Your task to perform on an android device: open app "Google Calendar" Image 0: 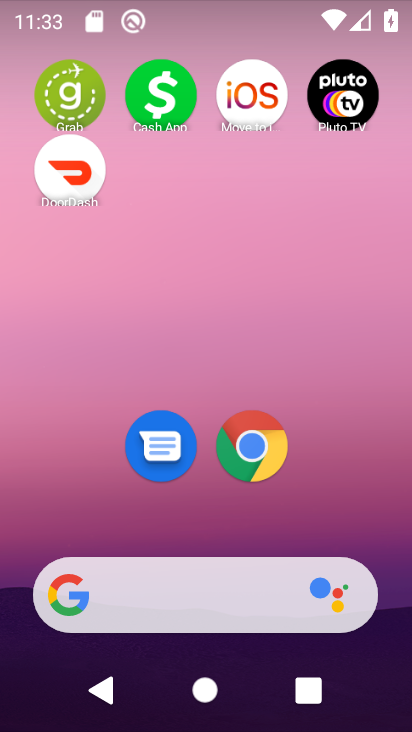
Step 0: drag from (224, 505) to (227, 22)
Your task to perform on an android device: open app "Google Calendar" Image 1: 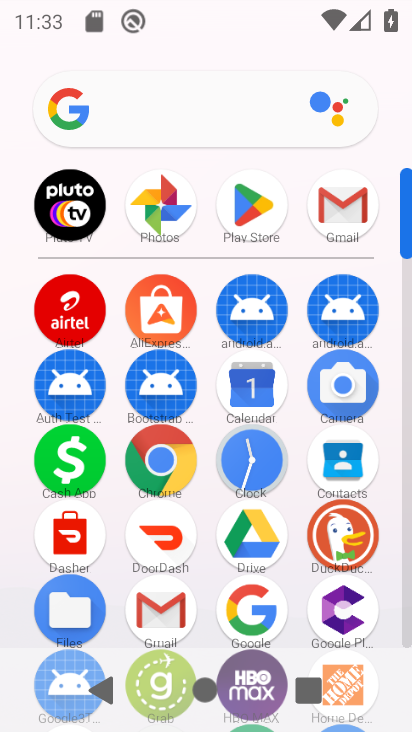
Step 1: click (261, 224)
Your task to perform on an android device: open app "Google Calendar" Image 2: 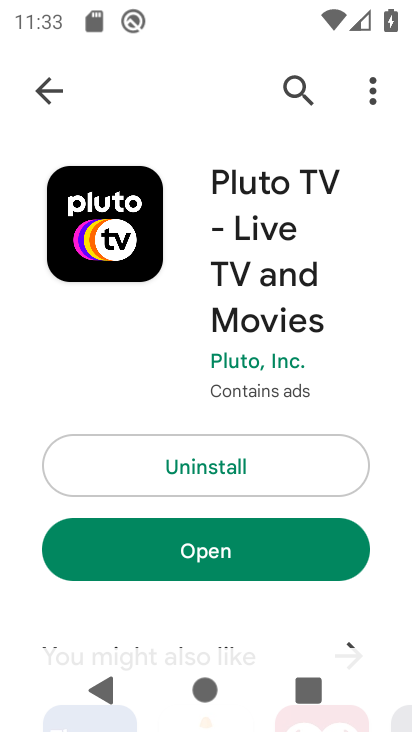
Step 2: click (281, 90)
Your task to perform on an android device: open app "Google Calendar" Image 3: 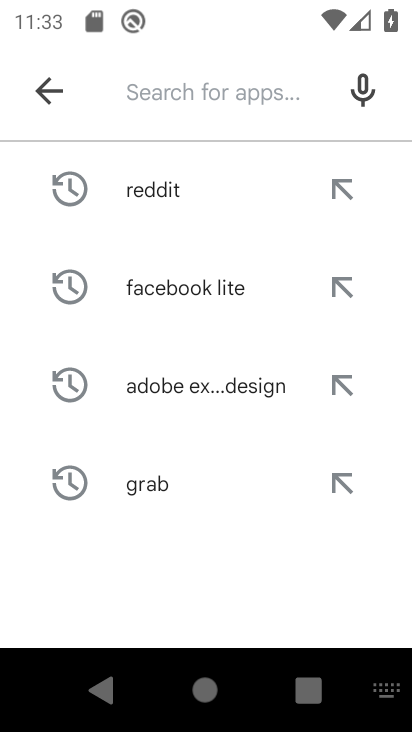
Step 3: click (205, 79)
Your task to perform on an android device: open app "Google Calendar" Image 4: 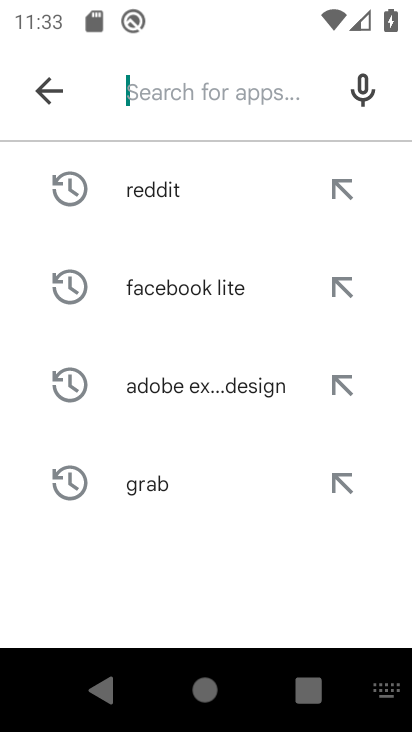
Step 4: type "Google Calendar"
Your task to perform on an android device: open app "Google Calendar" Image 5: 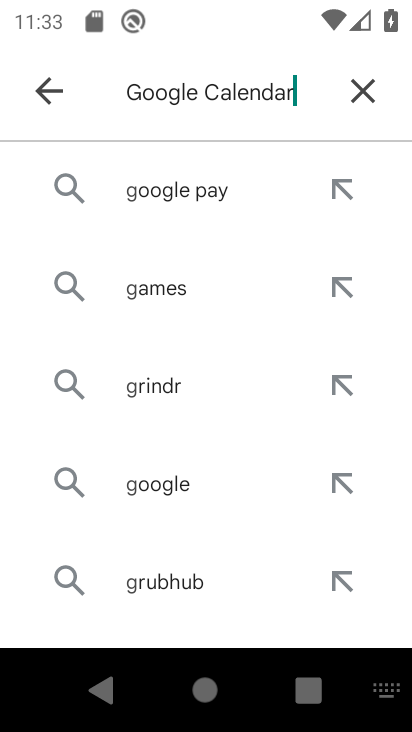
Step 5: type ""
Your task to perform on an android device: open app "Google Calendar" Image 6: 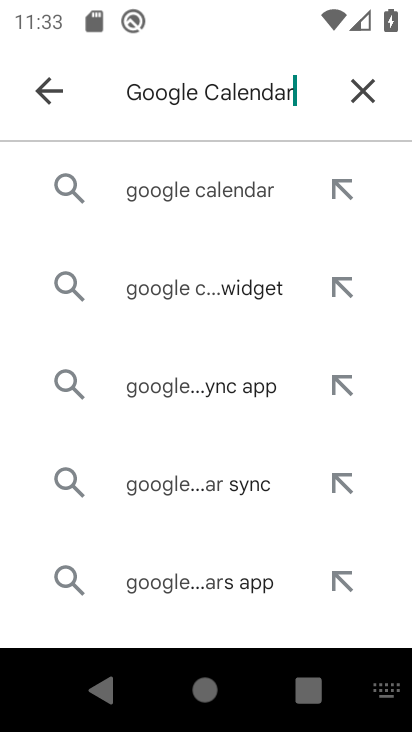
Step 6: click (234, 187)
Your task to perform on an android device: open app "Google Calendar" Image 7: 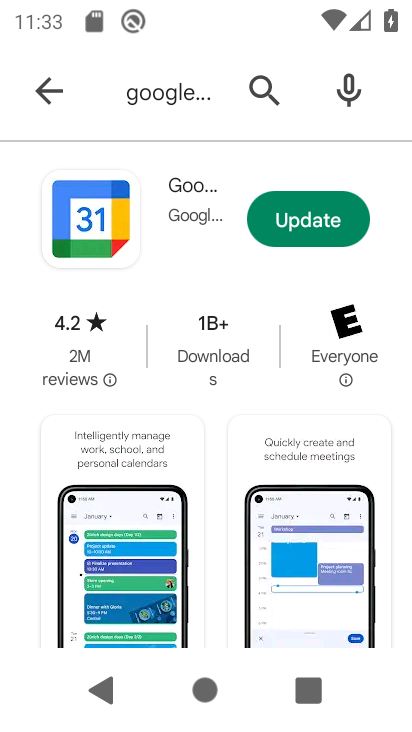
Step 7: click (177, 226)
Your task to perform on an android device: open app "Google Calendar" Image 8: 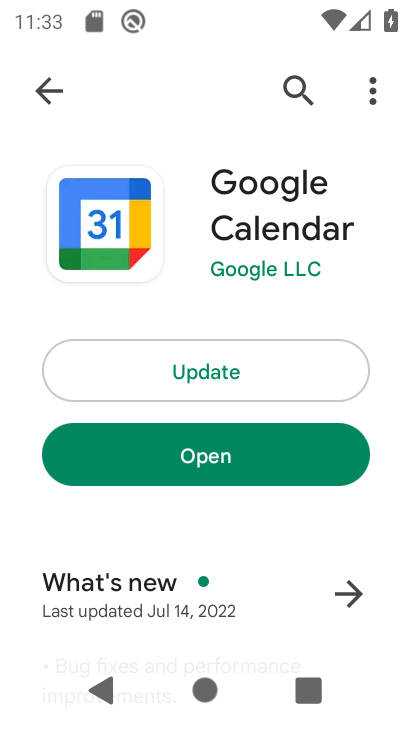
Step 8: click (179, 450)
Your task to perform on an android device: open app "Google Calendar" Image 9: 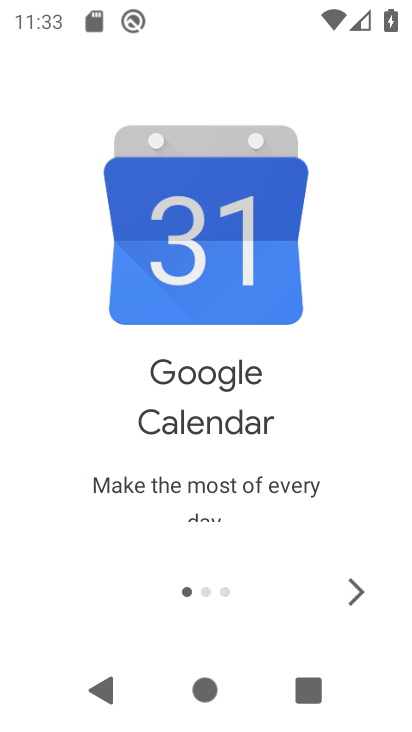
Step 9: task complete